Your task to perform on an android device: Open Yahoo.com Image 0: 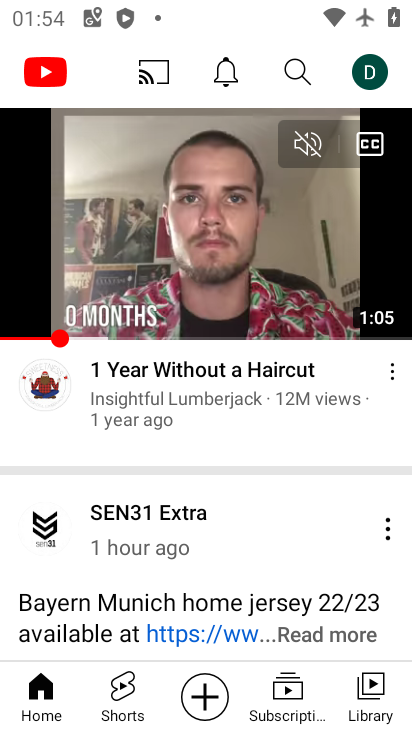
Step 0: press home button
Your task to perform on an android device: Open Yahoo.com Image 1: 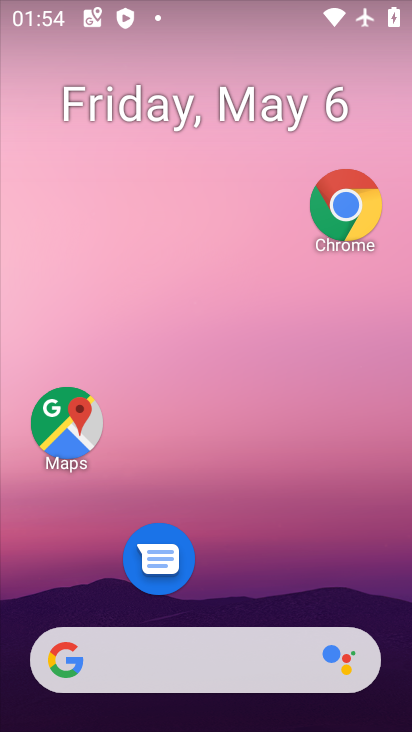
Step 1: drag from (146, 675) to (271, 104)
Your task to perform on an android device: Open Yahoo.com Image 2: 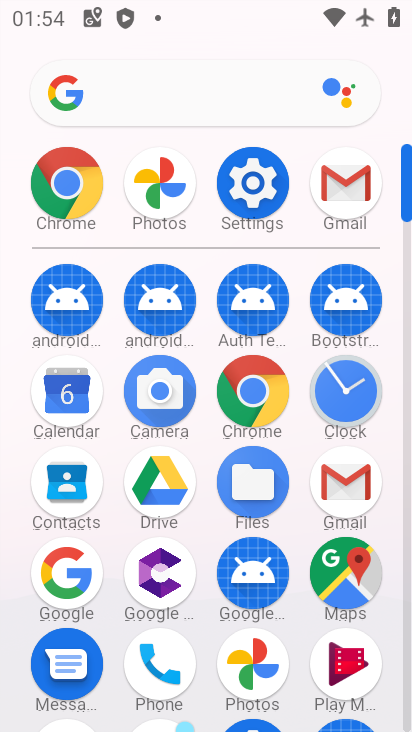
Step 2: click (56, 188)
Your task to perform on an android device: Open Yahoo.com Image 3: 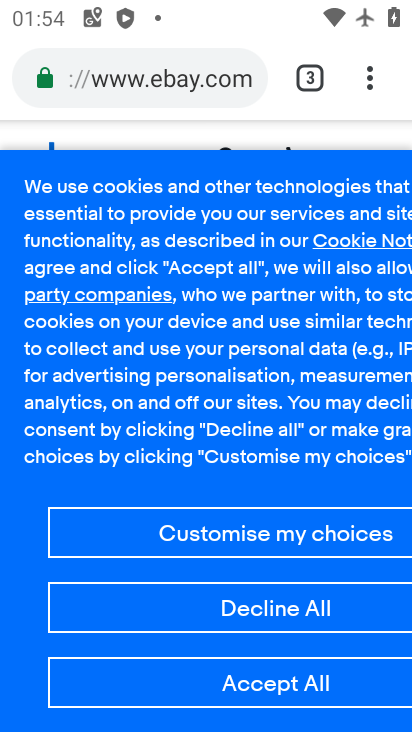
Step 3: drag from (369, 81) to (166, 156)
Your task to perform on an android device: Open Yahoo.com Image 4: 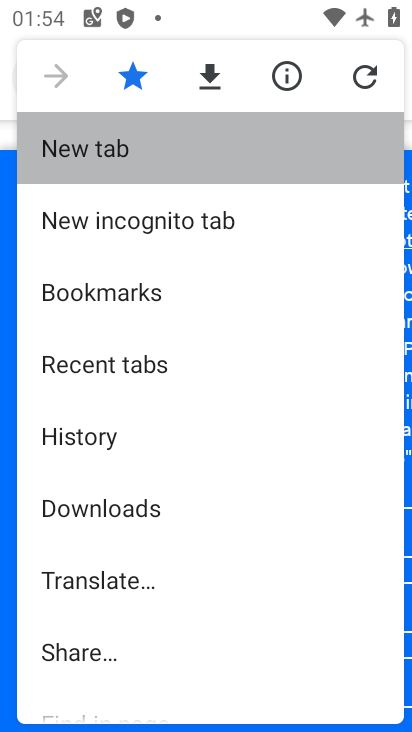
Step 4: click (166, 156)
Your task to perform on an android device: Open Yahoo.com Image 5: 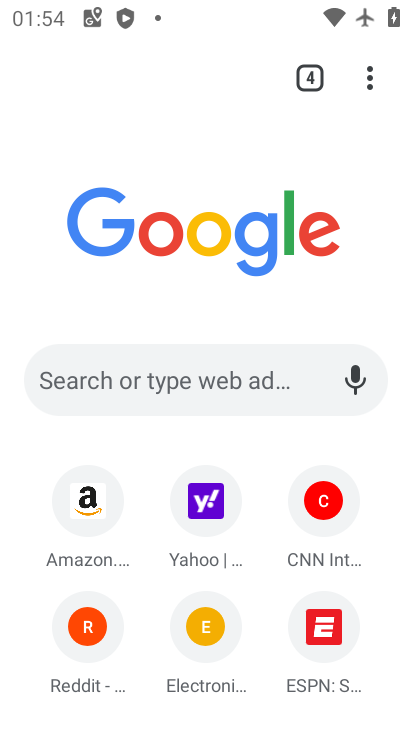
Step 5: click (200, 506)
Your task to perform on an android device: Open Yahoo.com Image 6: 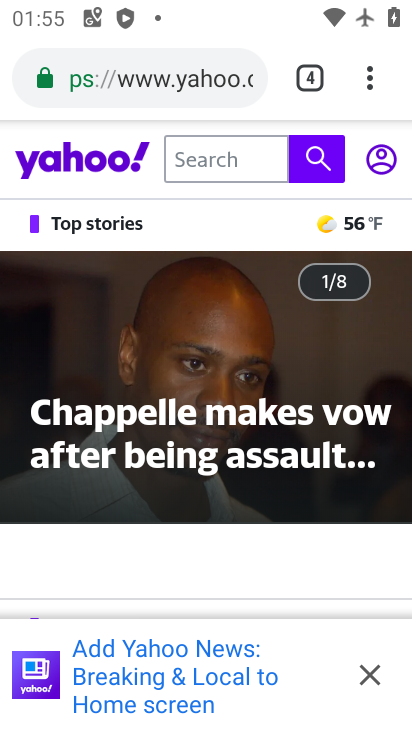
Step 6: task complete